Your task to perform on an android device: turn on notifications settings in the gmail app Image 0: 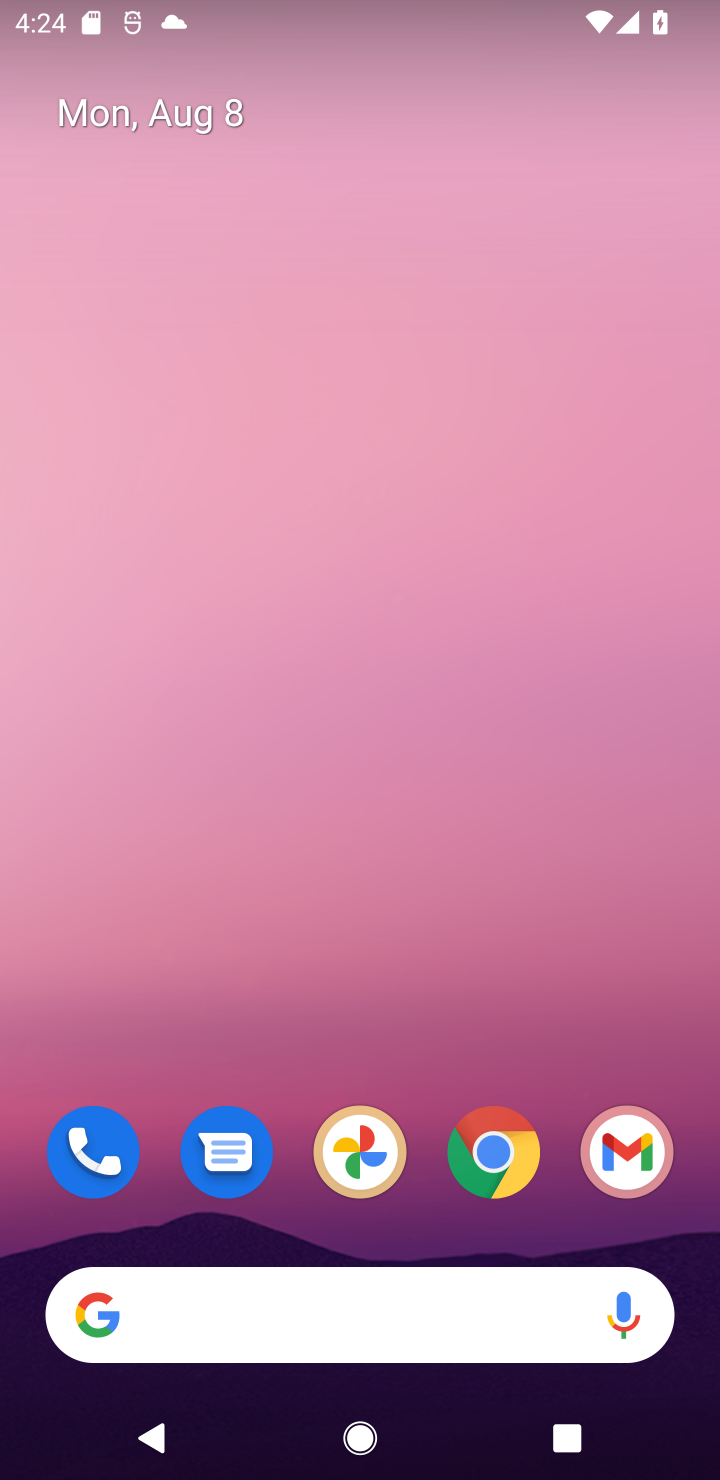
Step 0: click (623, 1162)
Your task to perform on an android device: turn on notifications settings in the gmail app Image 1: 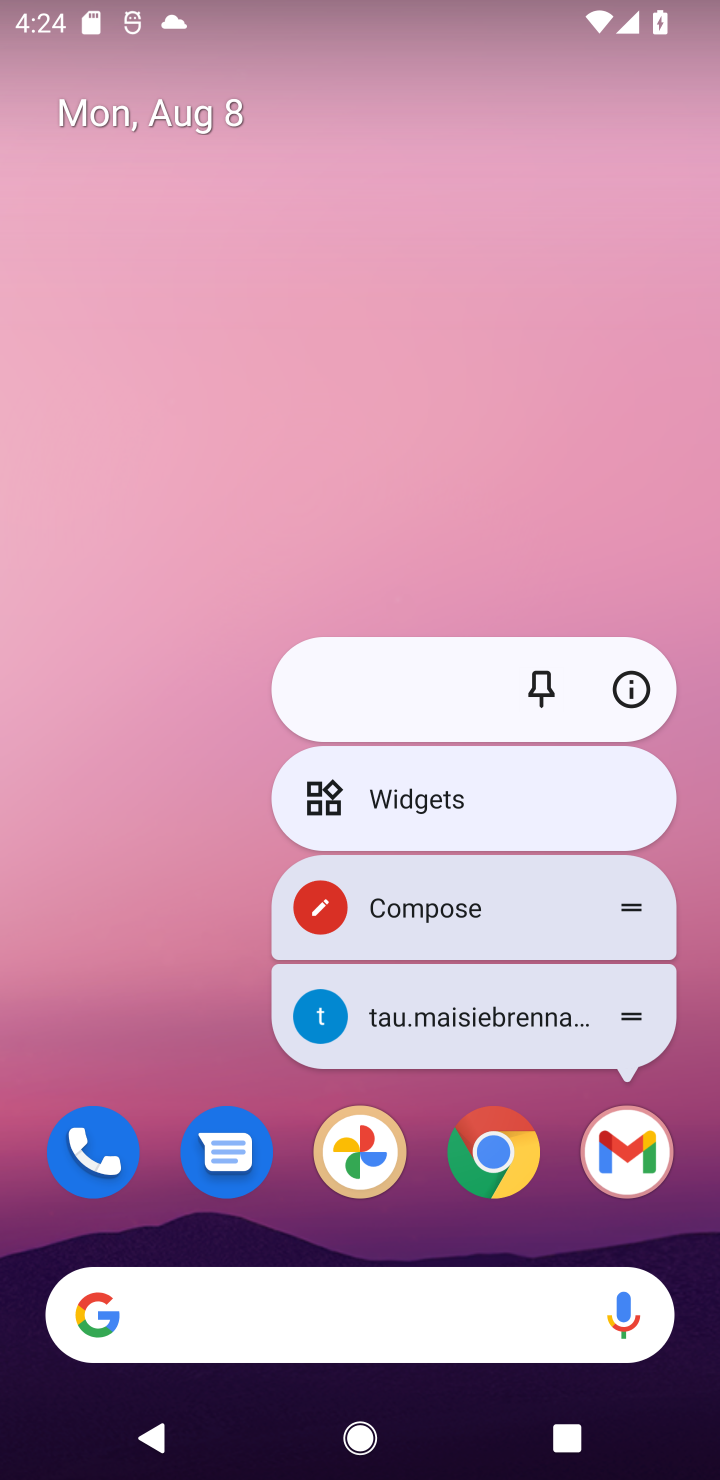
Step 1: click (625, 685)
Your task to perform on an android device: turn on notifications settings in the gmail app Image 2: 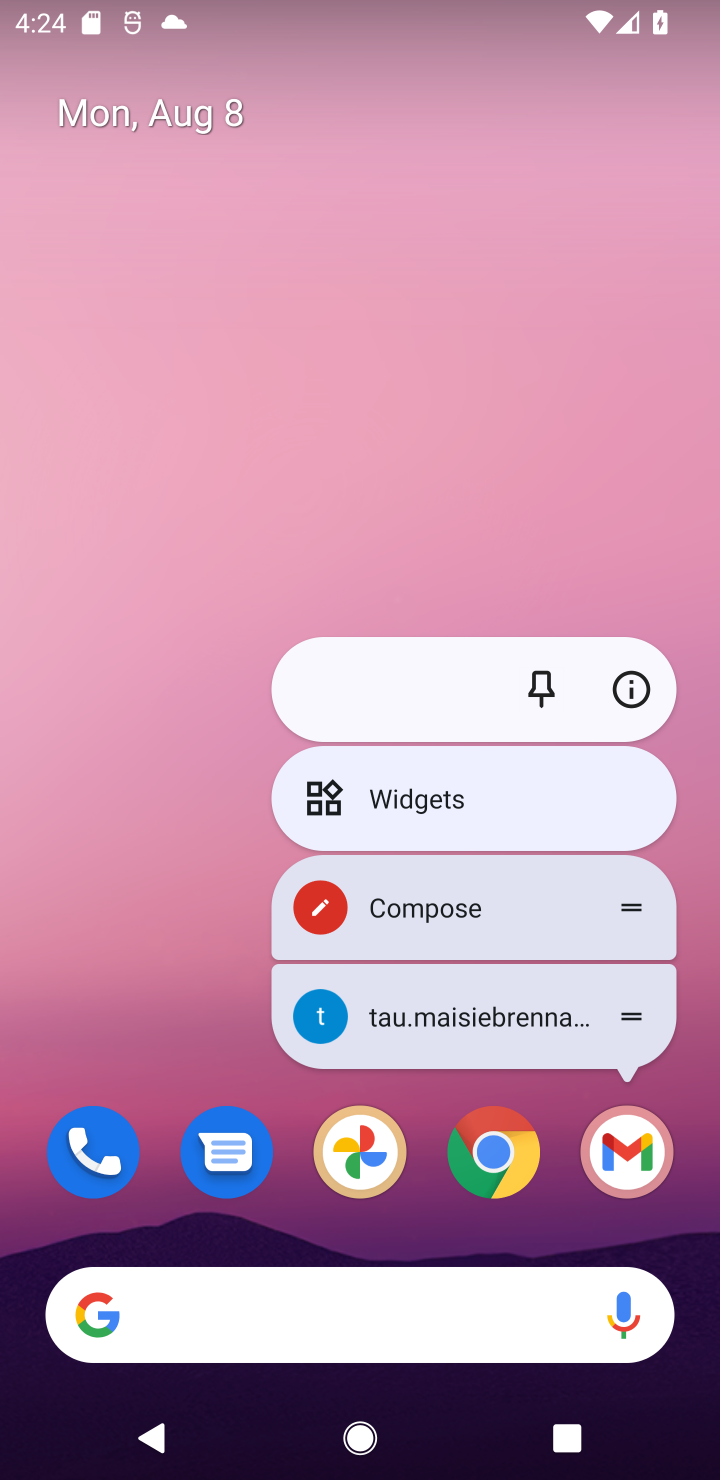
Step 2: click (596, 1159)
Your task to perform on an android device: turn on notifications settings in the gmail app Image 3: 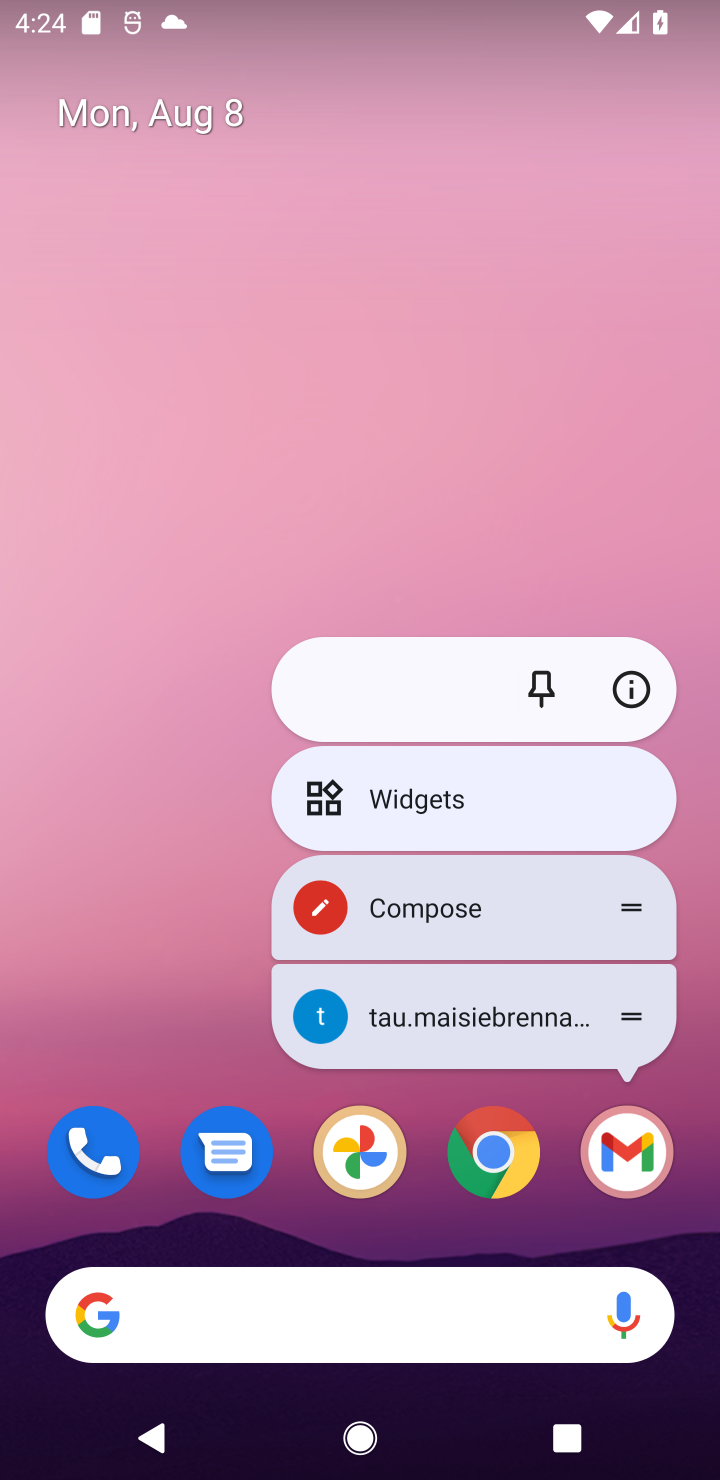
Step 3: click (657, 687)
Your task to perform on an android device: turn on notifications settings in the gmail app Image 4: 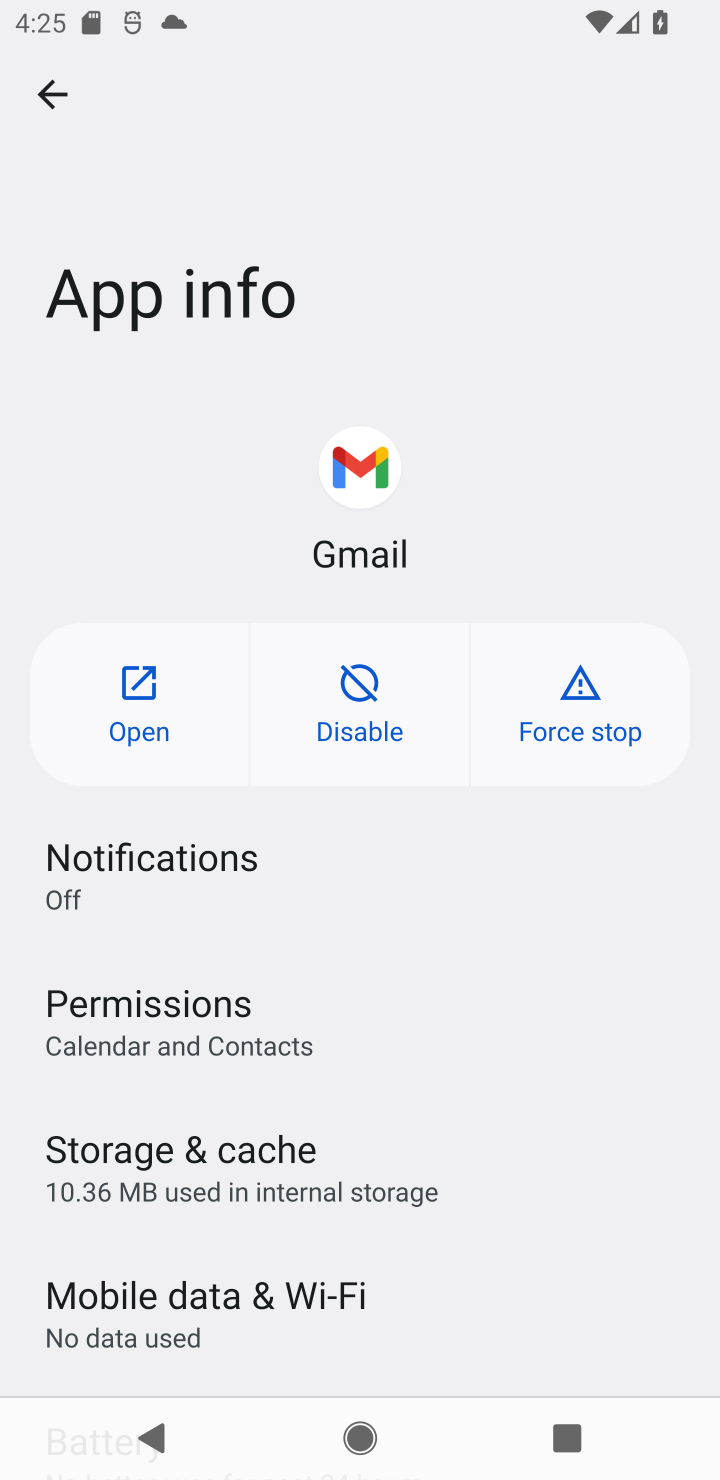
Step 4: click (142, 848)
Your task to perform on an android device: turn on notifications settings in the gmail app Image 5: 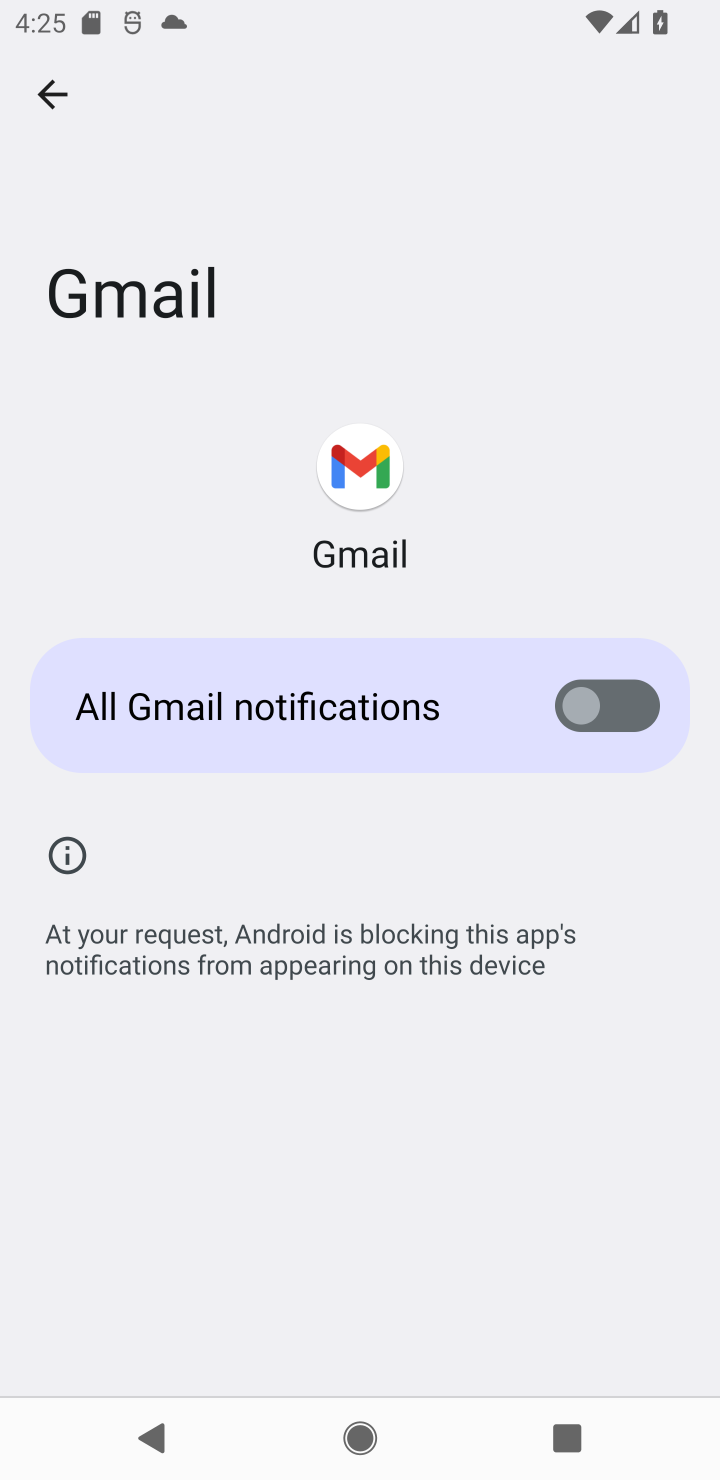
Step 5: click (611, 716)
Your task to perform on an android device: turn on notifications settings in the gmail app Image 6: 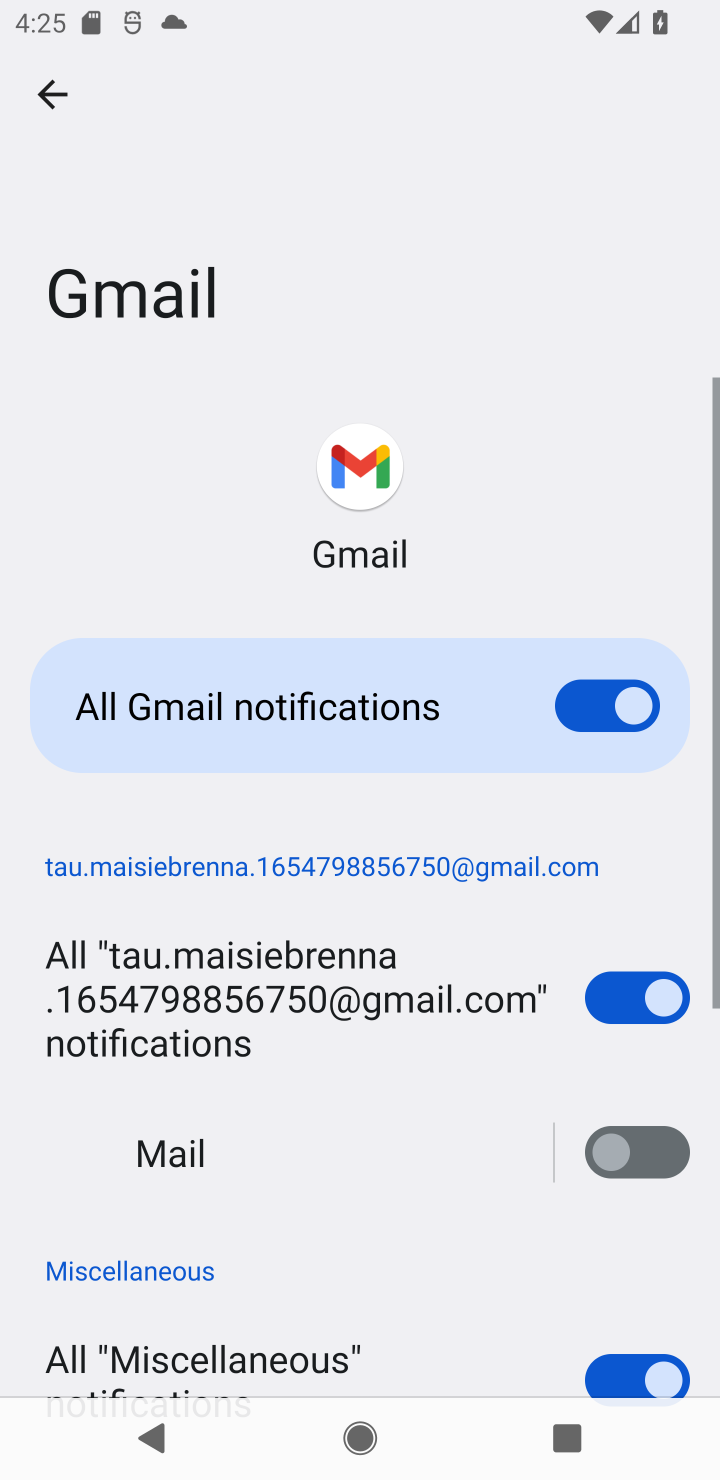
Step 6: task complete